Your task to perform on an android device: open app "Venmo" (install if not already installed) Image 0: 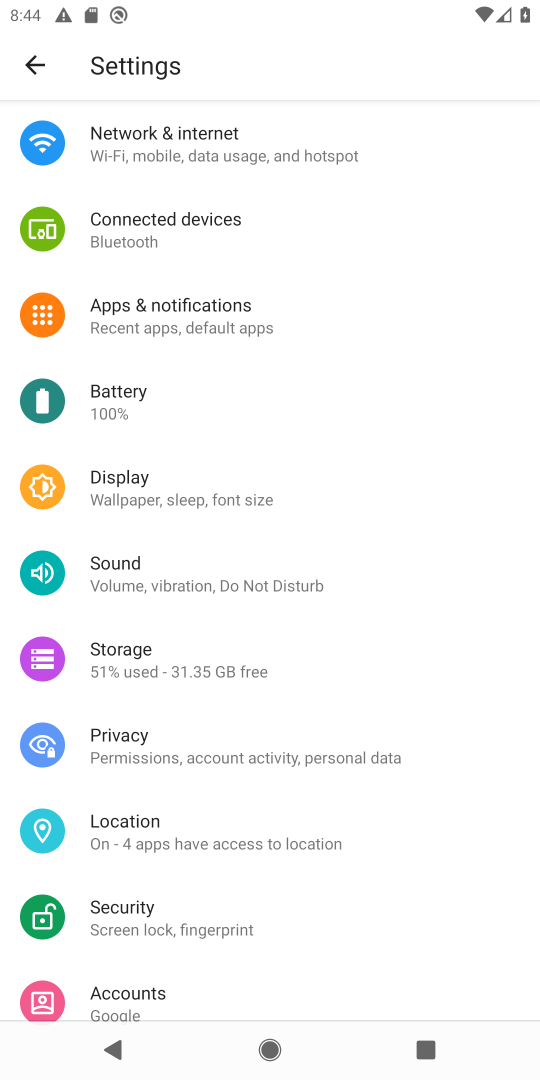
Step 0: press home button
Your task to perform on an android device: open app "Venmo" (install if not already installed) Image 1: 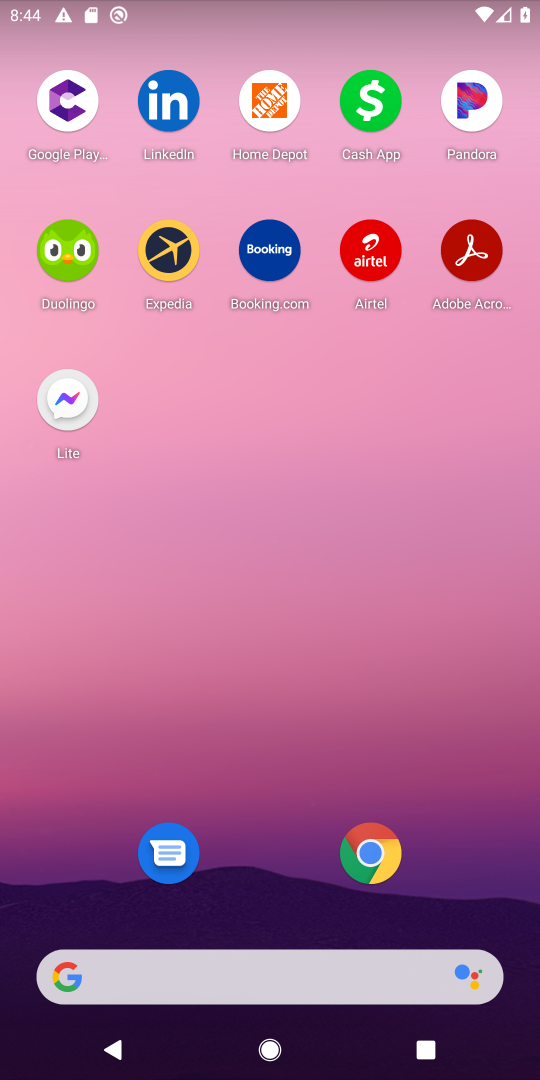
Step 1: drag from (302, 718) to (284, 259)
Your task to perform on an android device: open app "Venmo" (install if not already installed) Image 2: 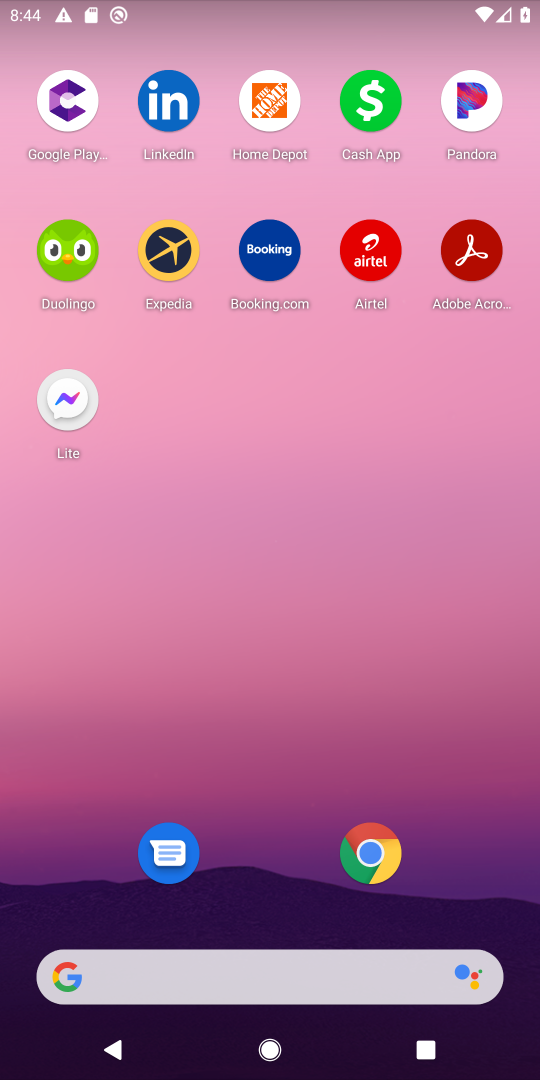
Step 2: drag from (233, 873) to (333, 93)
Your task to perform on an android device: open app "Venmo" (install if not already installed) Image 3: 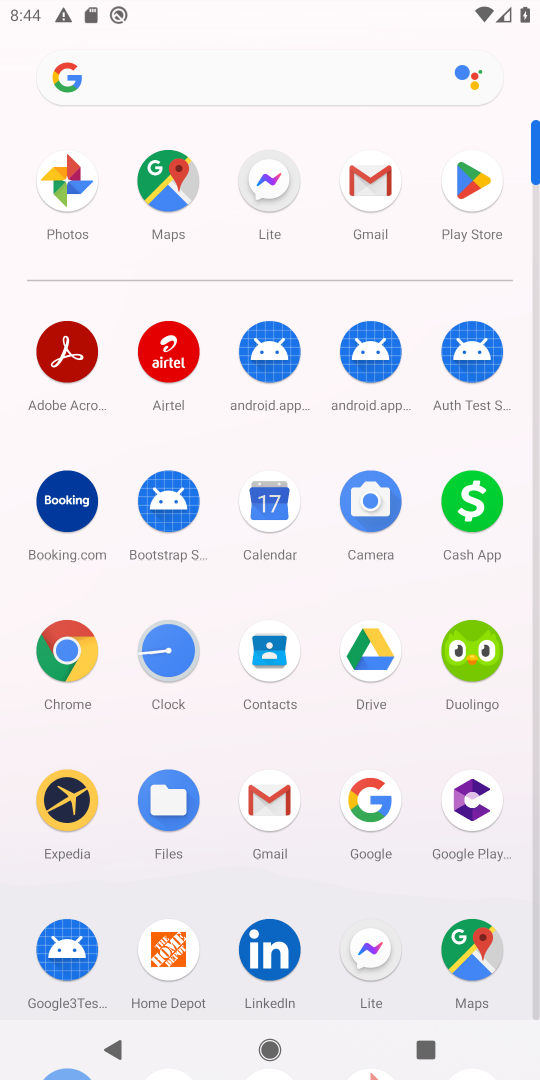
Step 3: click (466, 204)
Your task to perform on an android device: open app "Venmo" (install if not already installed) Image 4: 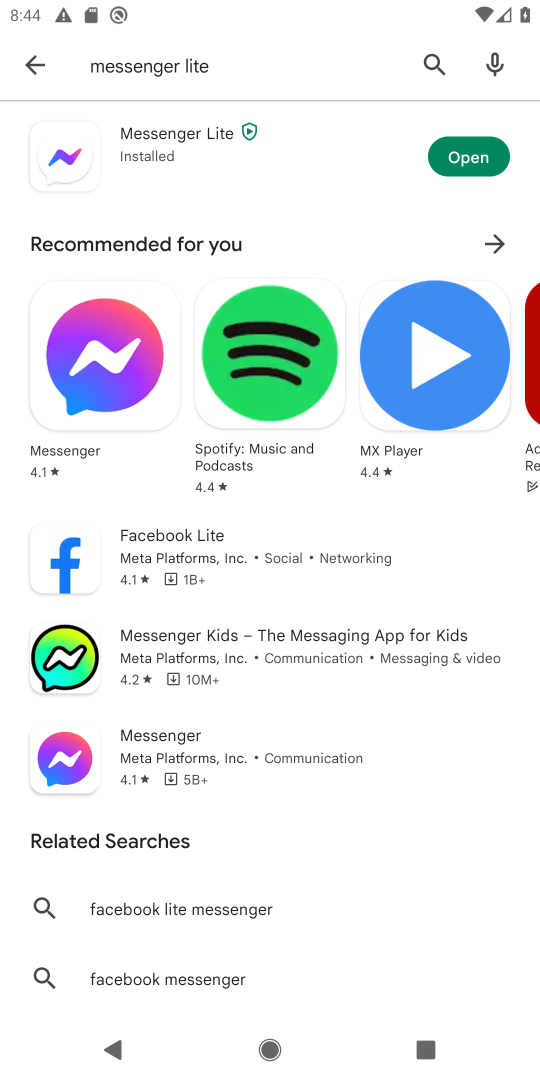
Step 4: click (448, 62)
Your task to perform on an android device: open app "Venmo" (install if not already installed) Image 5: 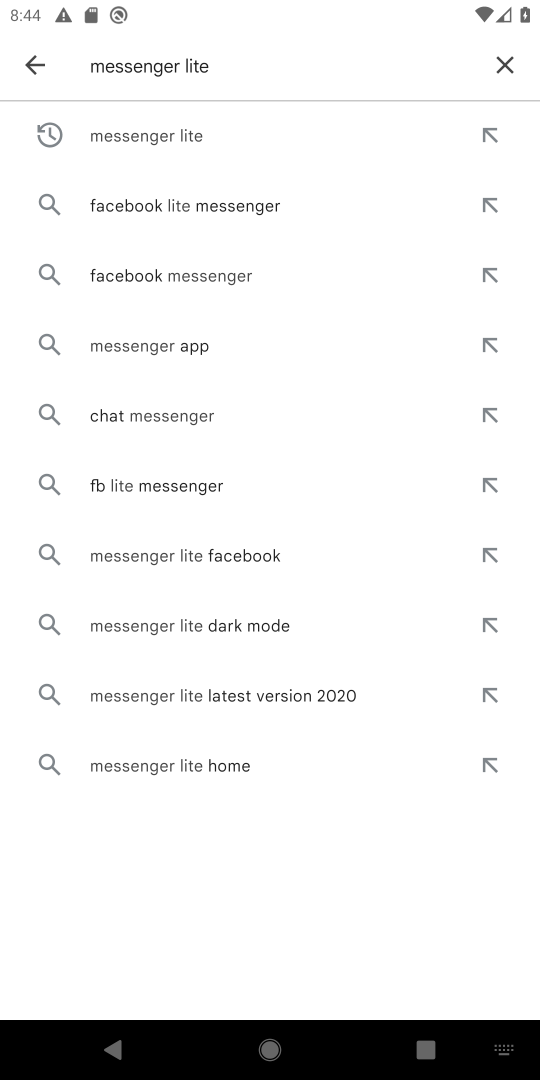
Step 5: click (508, 61)
Your task to perform on an android device: open app "Venmo" (install if not already installed) Image 6: 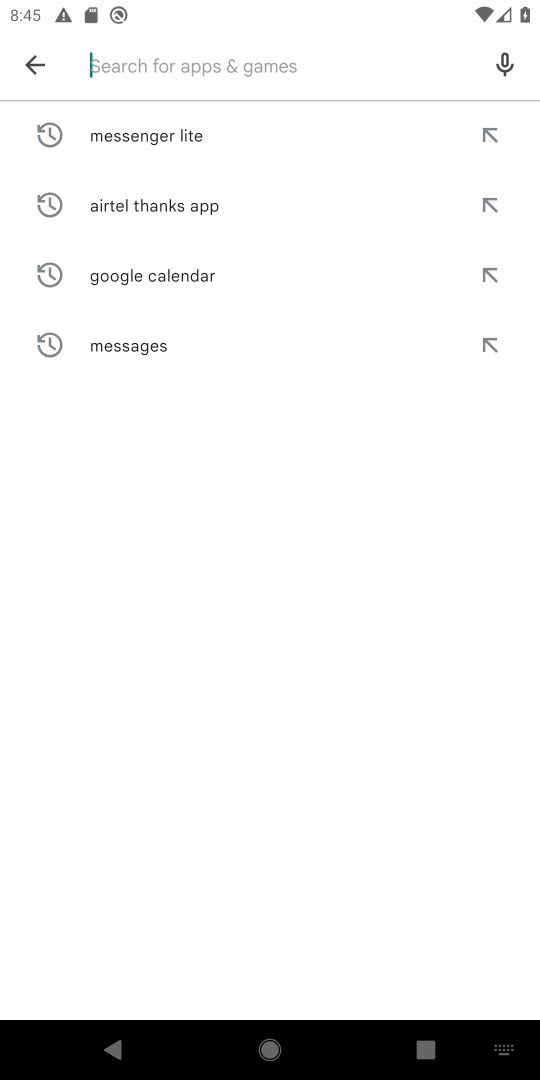
Step 6: type "Venm"
Your task to perform on an android device: open app "Venmo" (install if not already installed) Image 7: 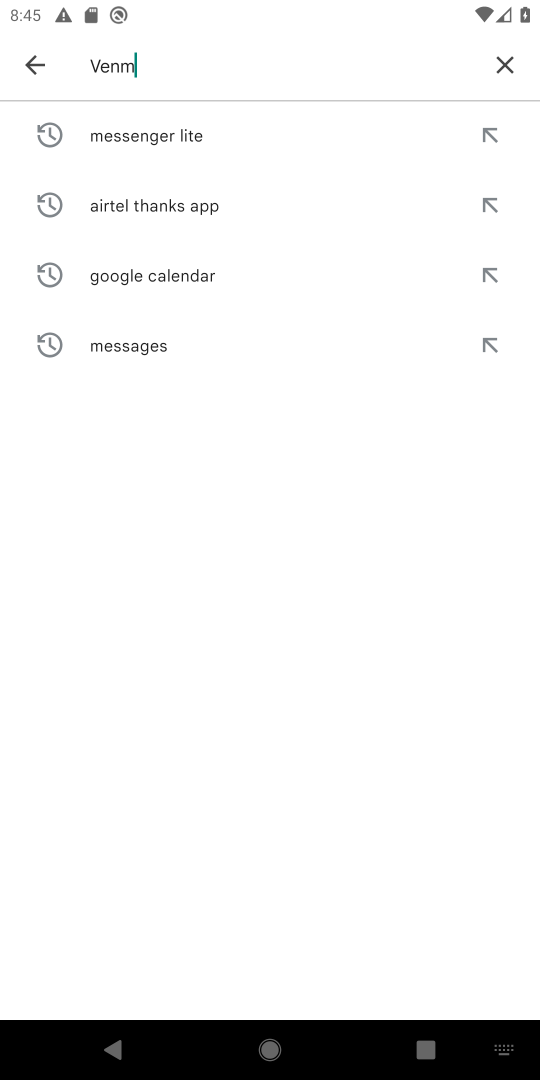
Step 7: type ""
Your task to perform on an android device: open app "Venmo" (install if not already installed) Image 8: 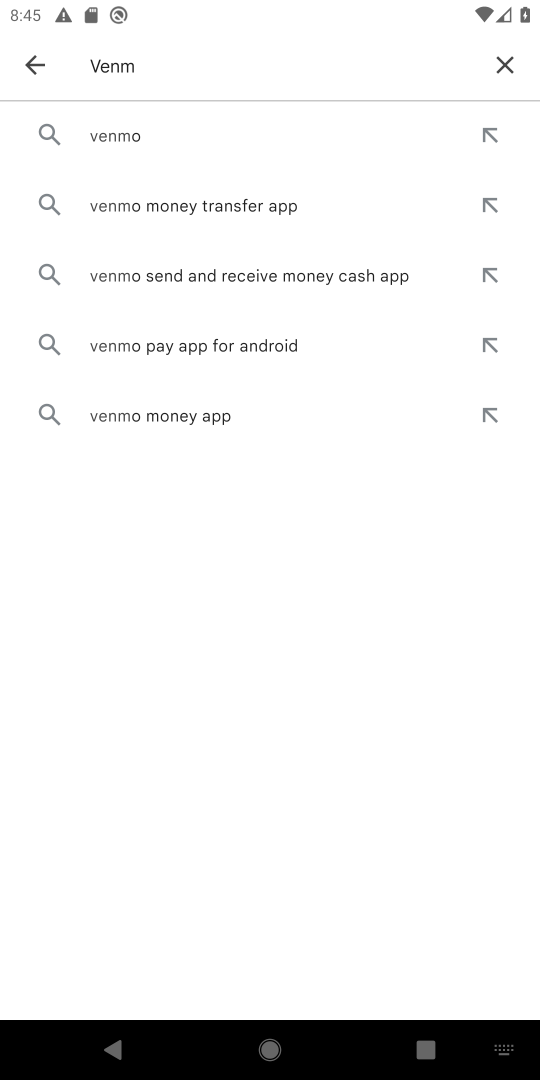
Step 8: click (142, 131)
Your task to perform on an android device: open app "Venmo" (install if not already installed) Image 9: 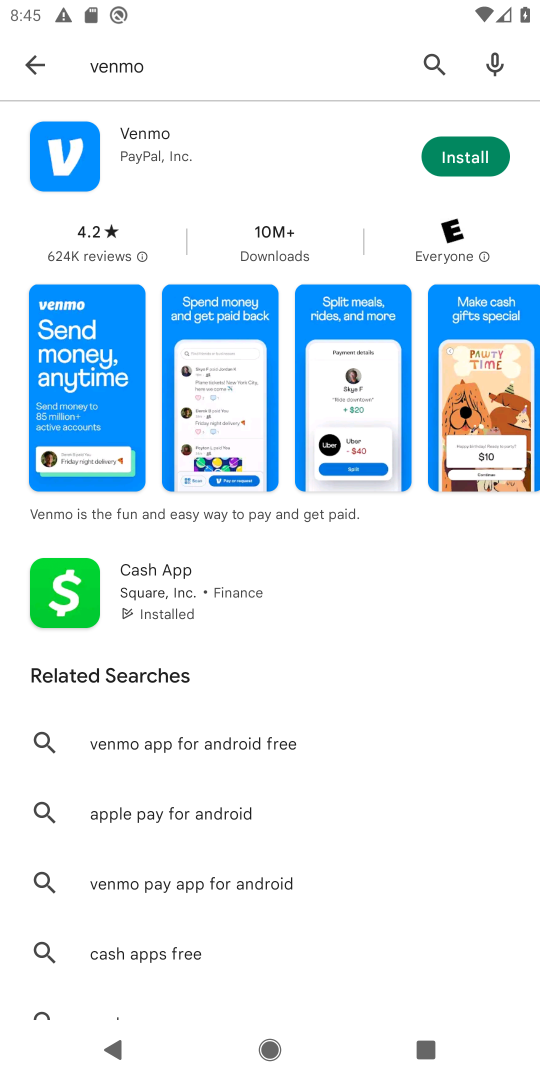
Step 9: click (469, 166)
Your task to perform on an android device: open app "Venmo" (install if not already installed) Image 10: 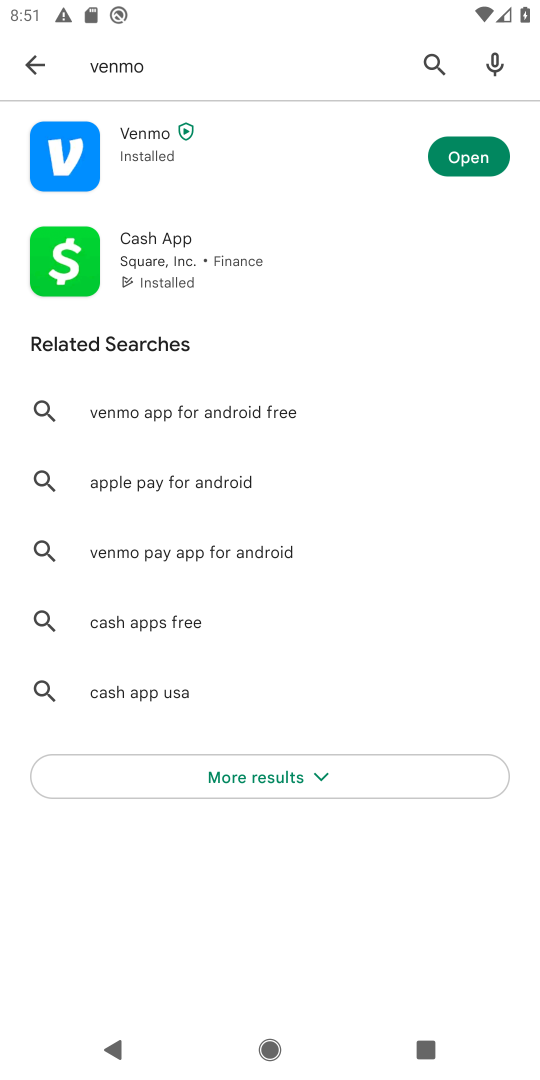
Step 10: click (486, 161)
Your task to perform on an android device: open app "Venmo" (install if not already installed) Image 11: 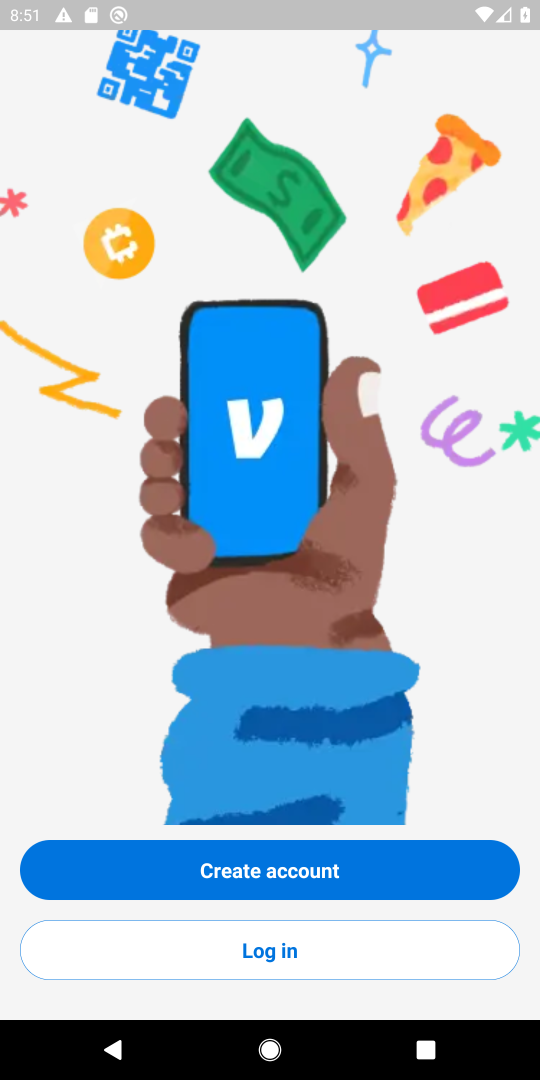
Step 11: task complete